Your task to perform on an android device: refresh tabs in the chrome app Image 0: 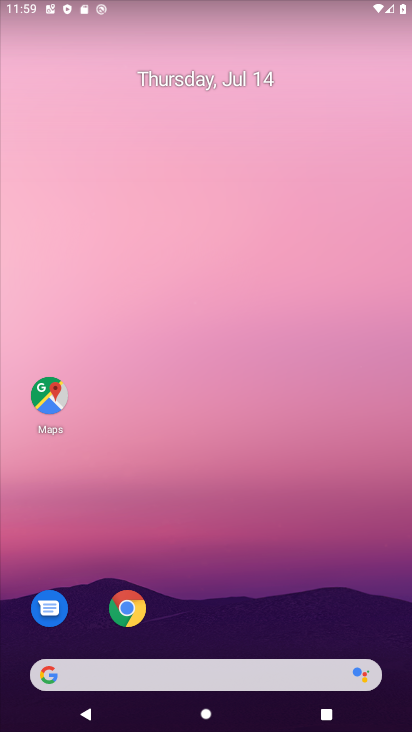
Step 0: click (120, 610)
Your task to perform on an android device: refresh tabs in the chrome app Image 1: 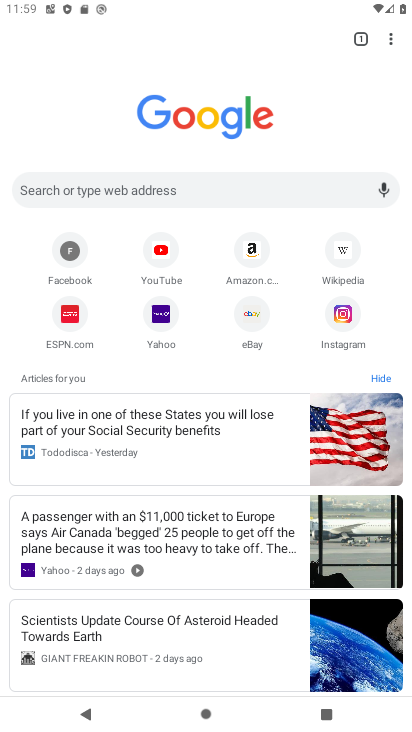
Step 1: click (388, 36)
Your task to perform on an android device: refresh tabs in the chrome app Image 2: 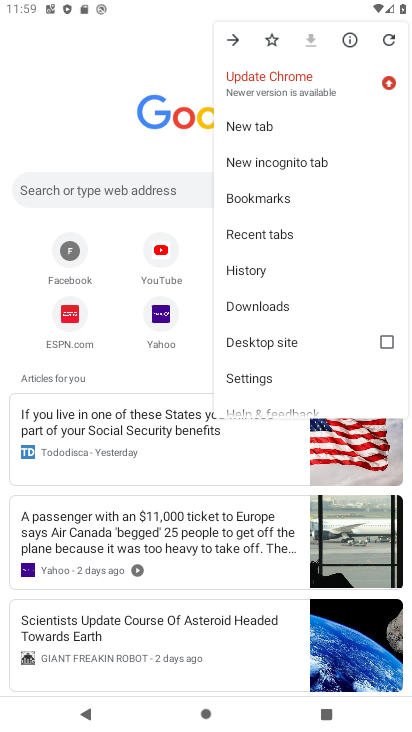
Step 2: click (391, 34)
Your task to perform on an android device: refresh tabs in the chrome app Image 3: 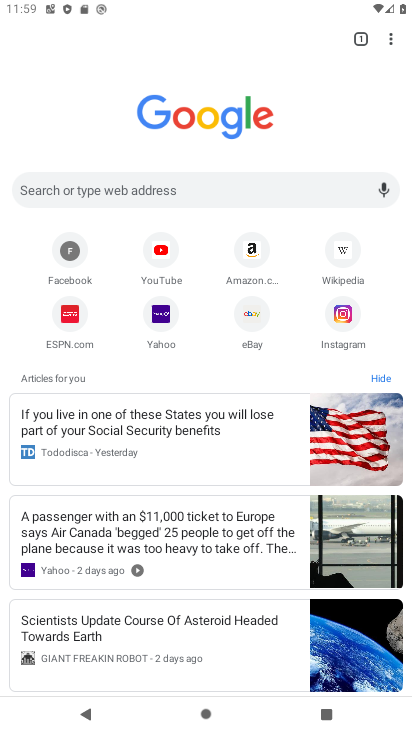
Step 3: task complete